Your task to perform on an android device: change the clock display to analog Image 0: 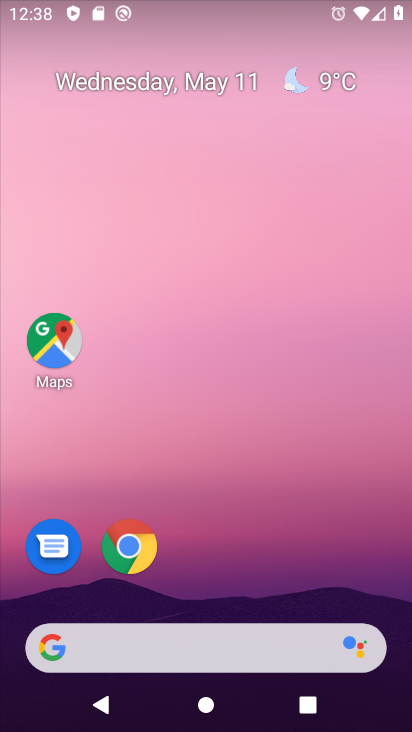
Step 0: drag from (166, 554) to (257, 233)
Your task to perform on an android device: change the clock display to analog Image 1: 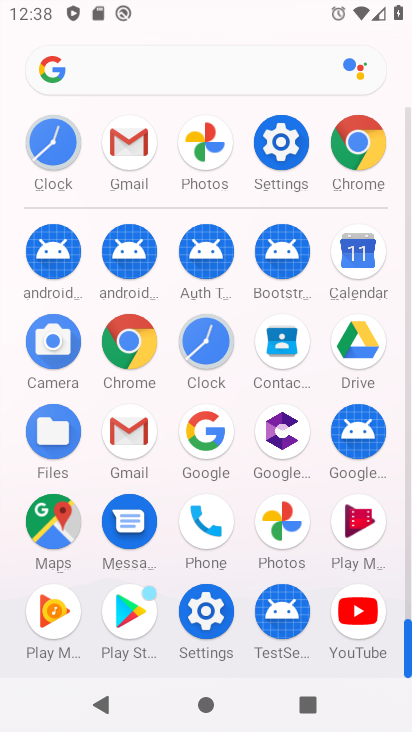
Step 1: drag from (233, 667) to (255, 237)
Your task to perform on an android device: change the clock display to analog Image 2: 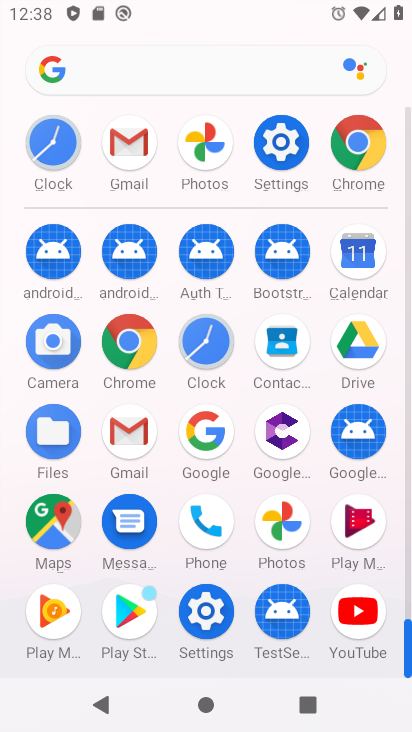
Step 2: click (183, 339)
Your task to perform on an android device: change the clock display to analog Image 3: 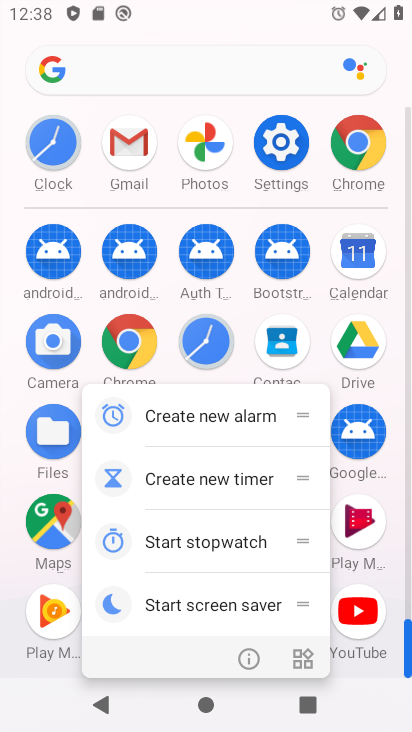
Step 3: click (246, 650)
Your task to perform on an android device: change the clock display to analog Image 4: 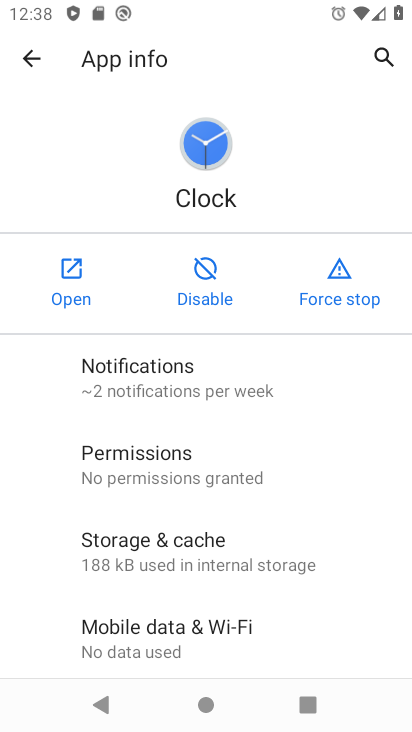
Step 4: click (80, 293)
Your task to perform on an android device: change the clock display to analog Image 5: 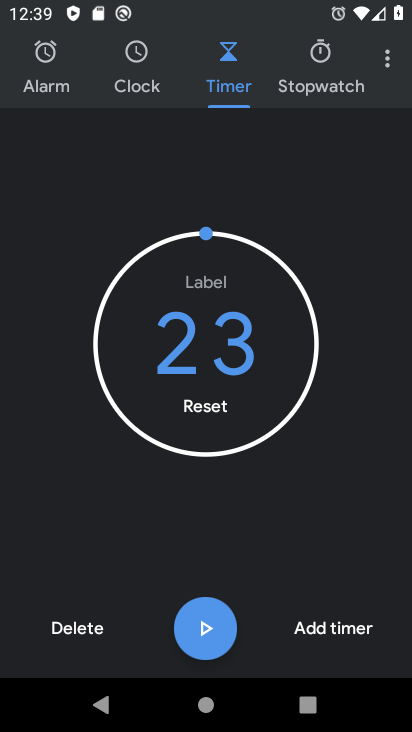
Step 5: click (389, 59)
Your task to perform on an android device: change the clock display to analog Image 6: 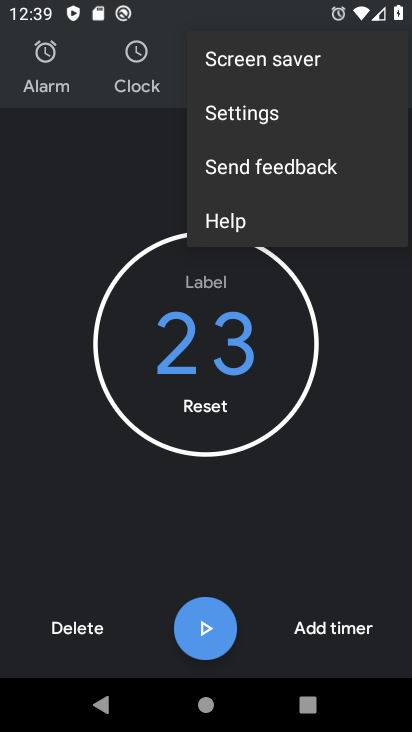
Step 6: click (266, 115)
Your task to perform on an android device: change the clock display to analog Image 7: 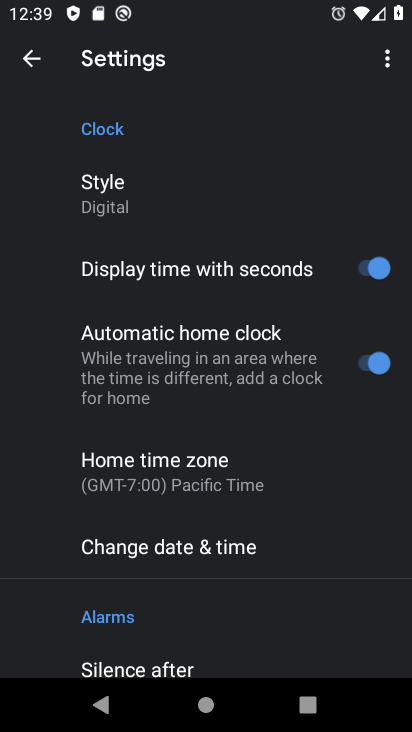
Step 7: click (177, 210)
Your task to perform on an android device: change the clock display to analog Image 8: 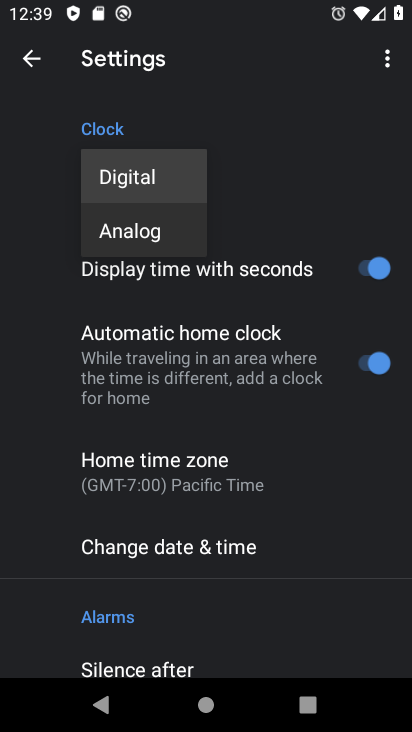
Step 8: click (157, 237)
Your task to perform on an android device: change the clock display to analog Image 9: 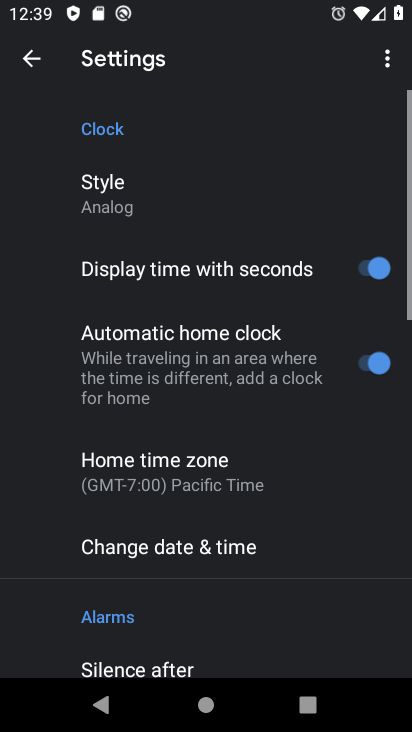
Step 9: task complete